Your task to perform on an android device: see tabs open on other devices in the chrome app Image 0: 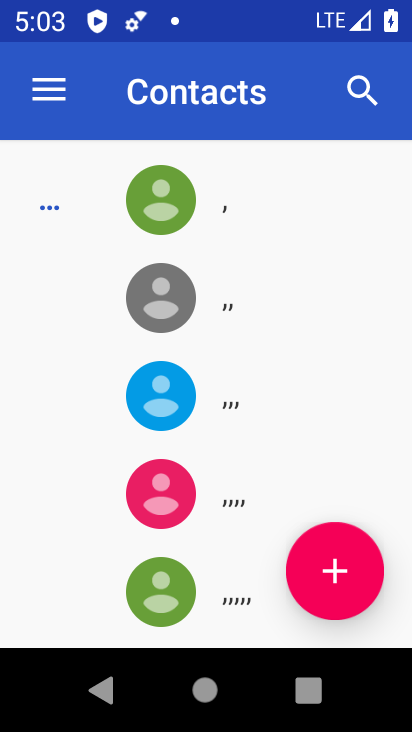
Step 0: press back button
Your task to perform on an android device: see tabs open on other devices in the chrome app Image 1: 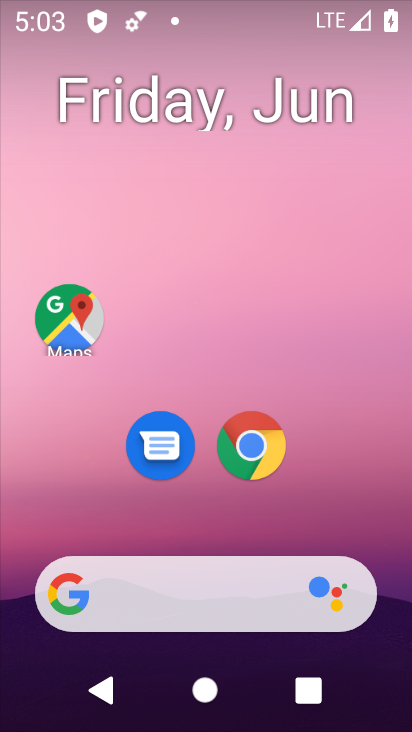
Step 1: click (254, 439)
Your task to perform on an android device: see tabs open on other devices in the chrome app Image 2: 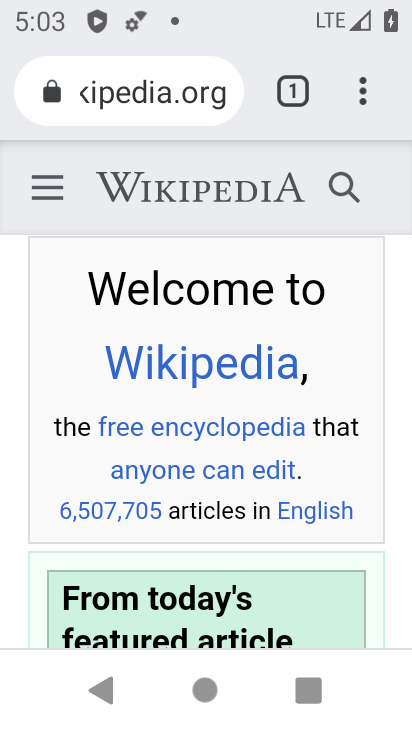
Step 2: task complete